Your task to perform on an android device: Open battery settings Image 0: 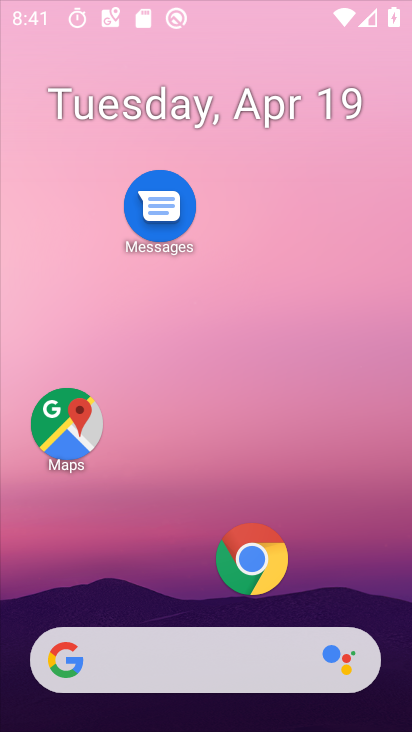
Step 0: drag from (168, 671) to (212, 33)
Your task to perform on an android device: Open battery settings Image 1: 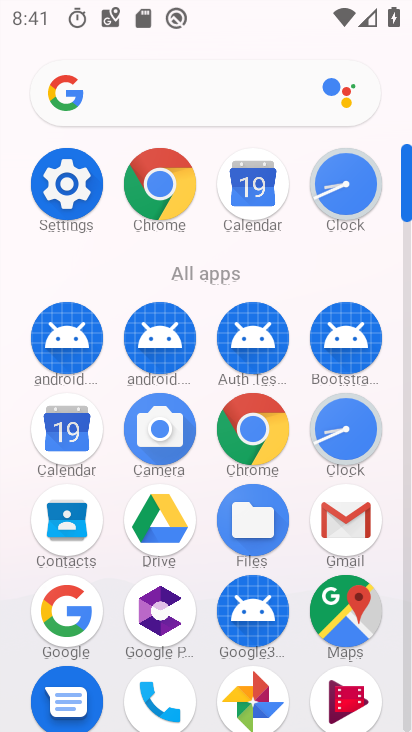
Step 1: click (67, 179)
Your task to perform on an android device: Open battery settings Image 2: 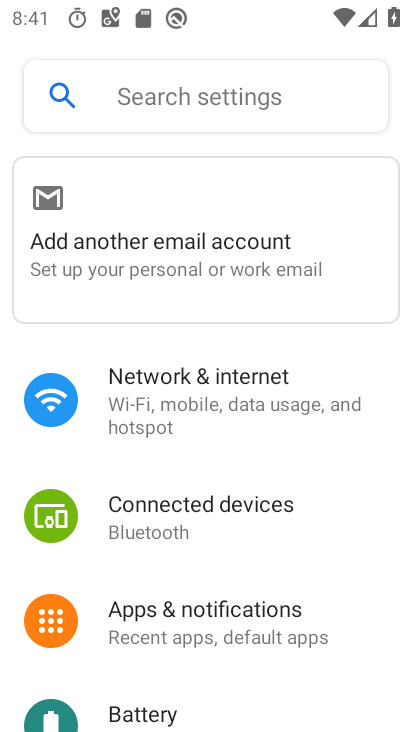
Step 2: click (139, 702)
Your task to perform on an android device: Open battery settings Image 3: 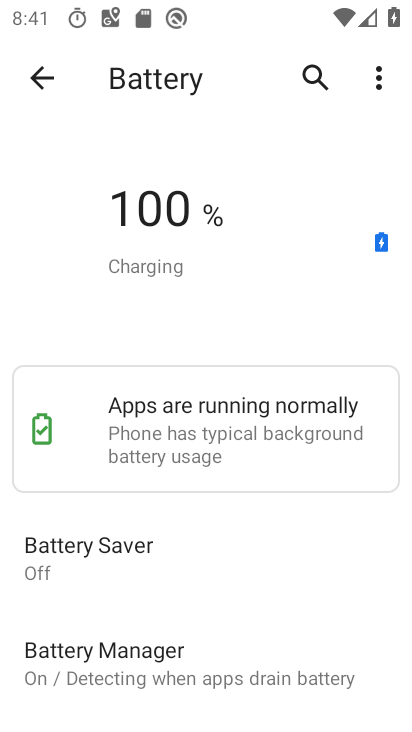
Step 3: task complete